Your task to perform on an android device: Go to Google maps Image 0: 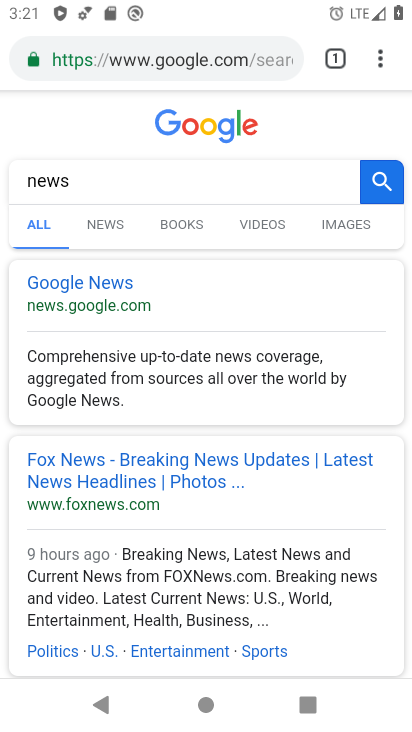
Step 0: press home button
Your task to perform on an android device: Go to Google maps Image 1: 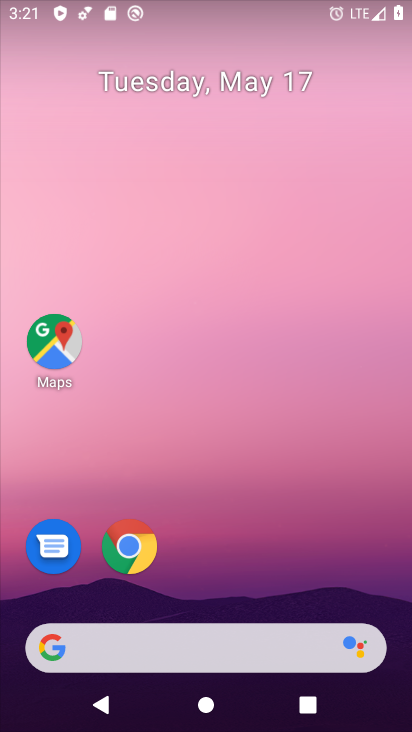
Step 1: click (78, 346)
Your task to perform on an android device: Go to Google maps Image 2: 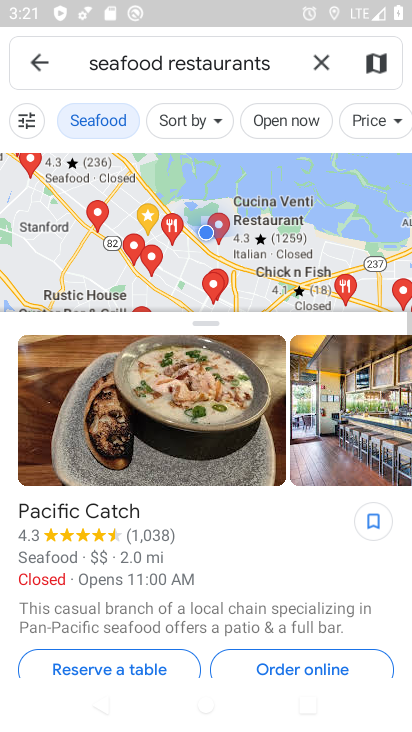
Step 2: task complete